Your task to perform on an android device: change alarm snooze length Image 0: 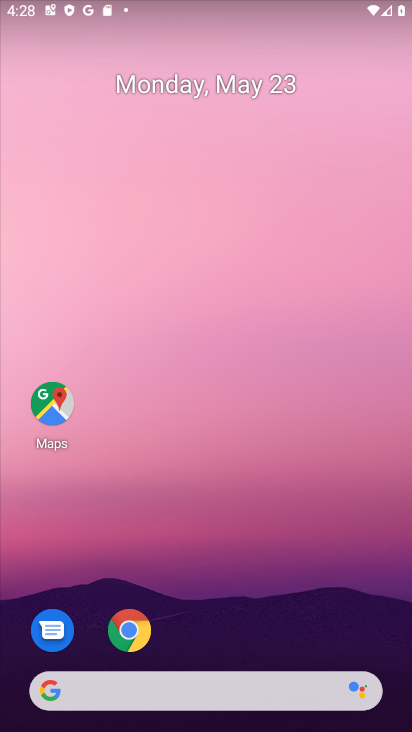
Step 0: press home button
Your task to perform on an android device: change alarm snooze length Image 1: 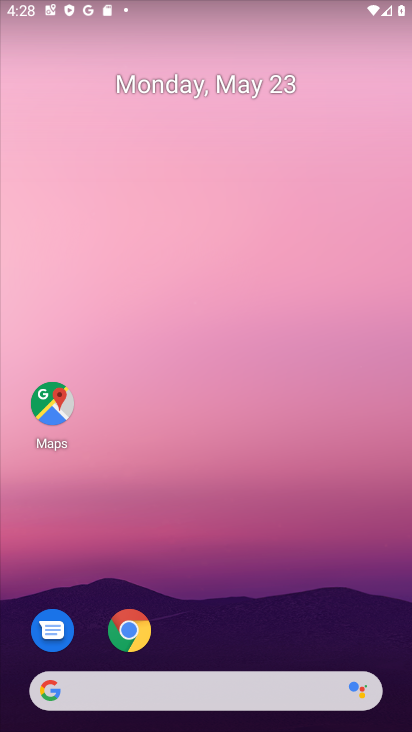
Step 1: drag from (211, 632) to (205, 121)
Your task to perform on an android device: change alarm snooze length Image 2: 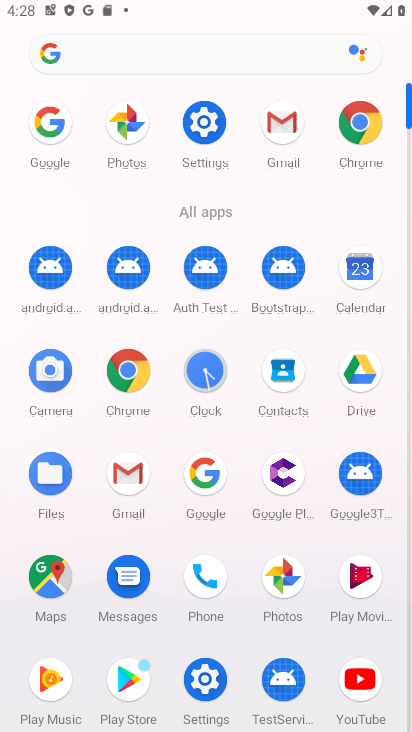
Step 2: click (210, 365)
Your task to perform on an android device: change alarm snooze length Image 3: 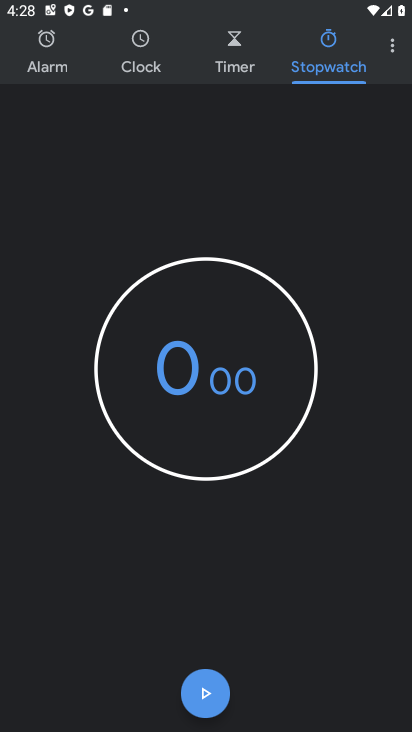
Step 3: click (397, 41)
Your task to perform on an android device: change alarm snooze length Image 4: 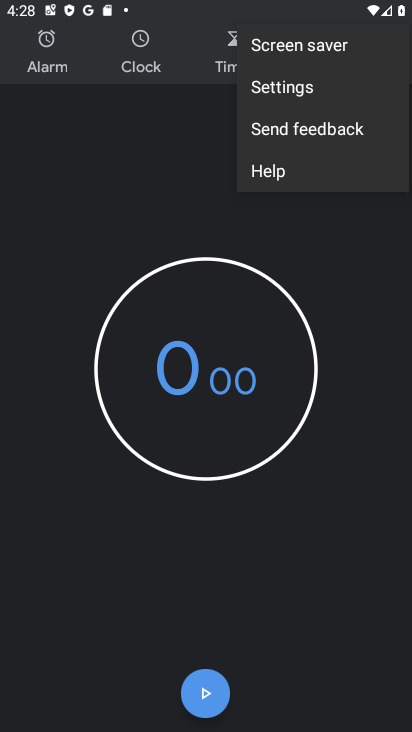
Step 4: click (313, 93)
Your task to perform on an android device: change alarm snooze length Image 5: 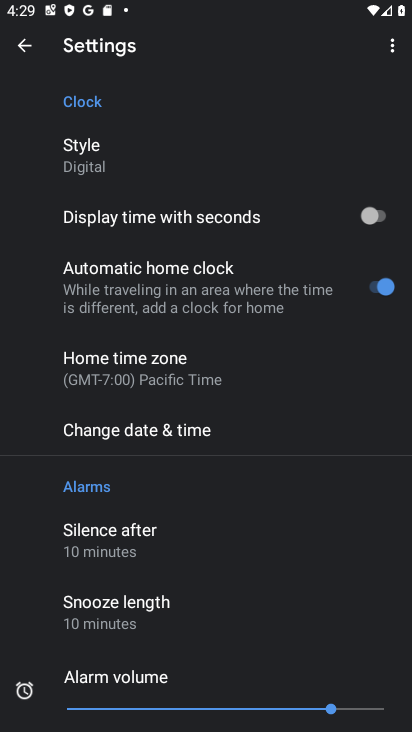
Step 5: click (175, 605)
Your task to perform on an android device: change alarm snooze length Image 6: 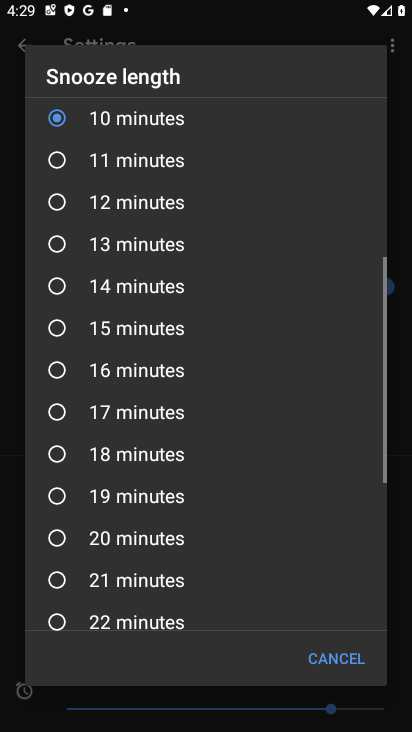
Step 6: drag from (104, 233) to (123, 524)
Your task to perform on an android device: change alarm snooze length Image 7: 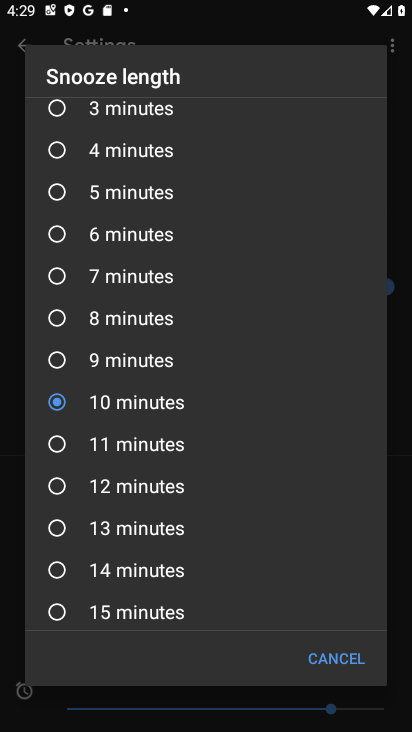
Step 7: click (62, 230)
Your task to perform on an android device: change alarm snooze length Image 8: 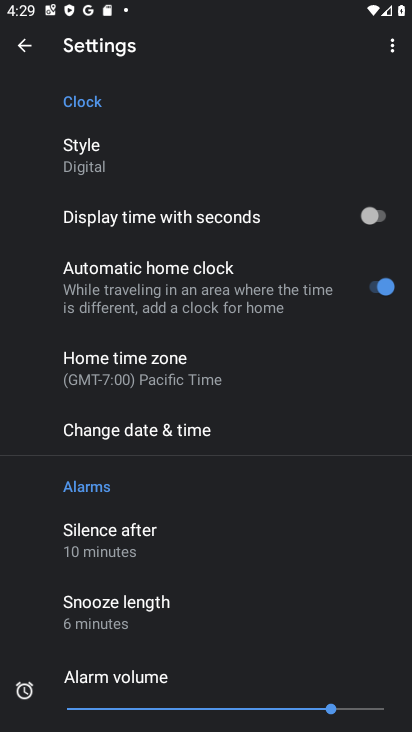
Step 8: task complete